Your task to perform on an android device: clear history in the chrome app Image 0: 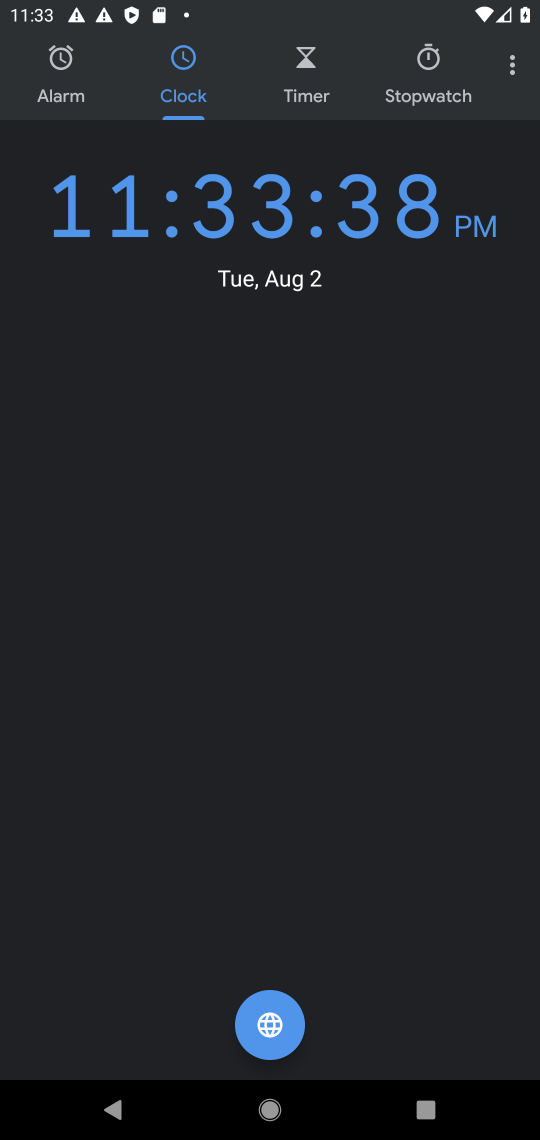
Step 0: press home button
Your task to perform on an android device: clear history in the chrome app Image 1: 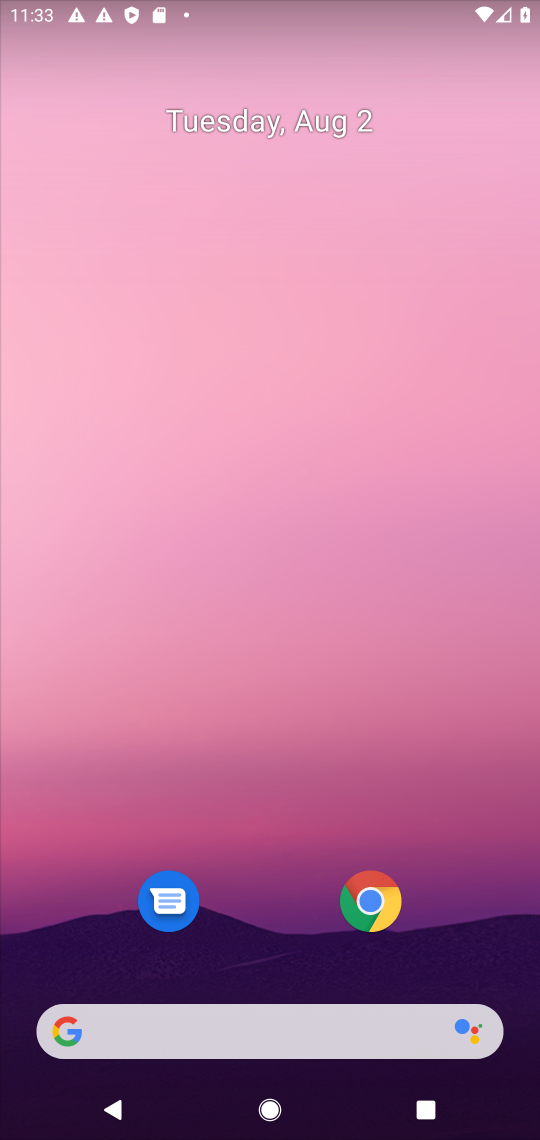
Step 1: click (380, 894)
Your task to perform on an android device: clear history in the chrome app Image 2: 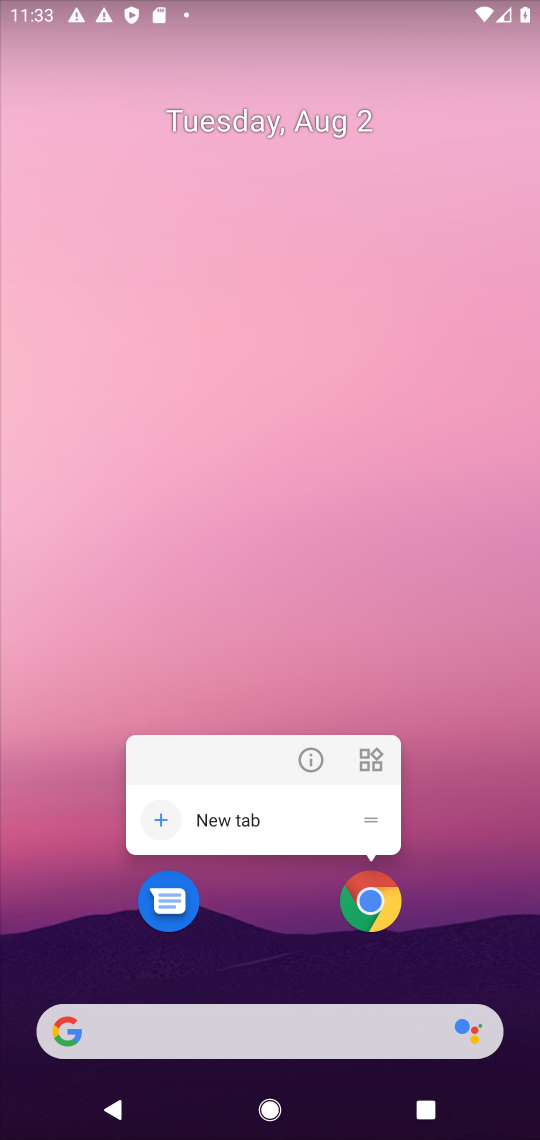
Step 2: click (366, 903)
Your task to perform on an android device: clear history in the chrome app Image 3: 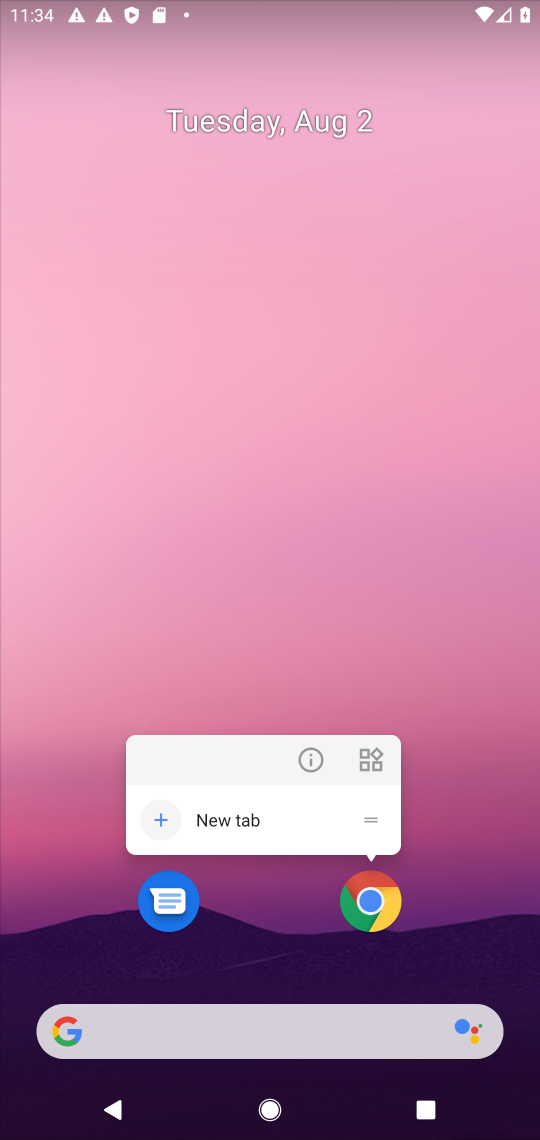
Step 3: click (356, 898)
Your task to perform on an android device: clear history in the chrome app Image 4: 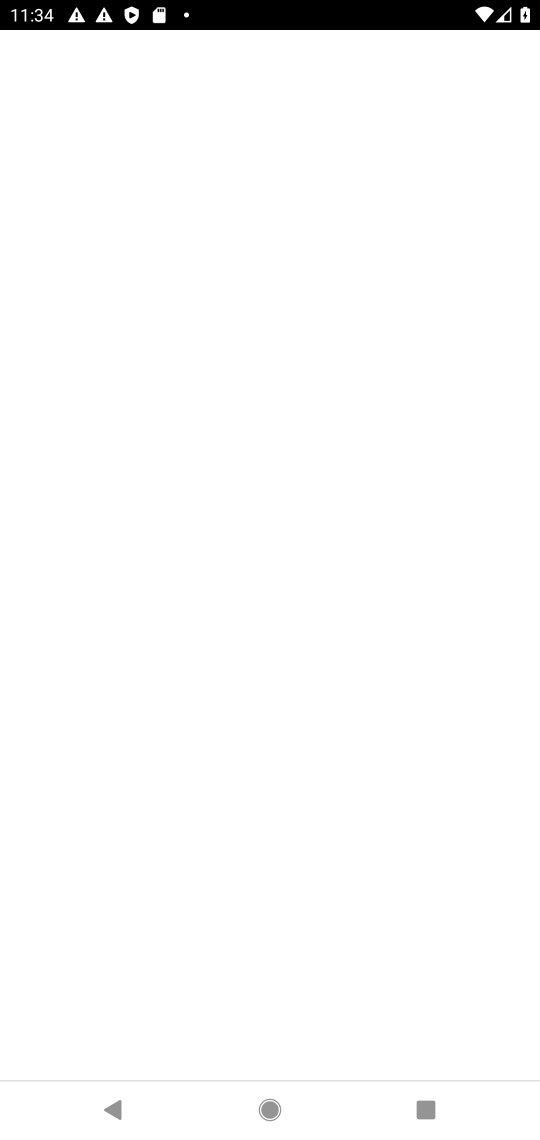
Step 4: task complete